Your task to perform on an android device: Open Youtube and go to "Your channel" Image 0: 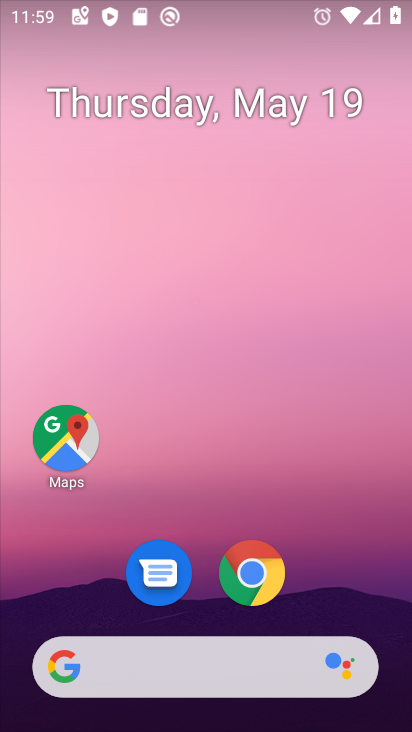
Step 0: drag from (201, 603) to (300, 37)
Your task to perform on an android device: Open Youtube and go to "Your channel" Image 1: 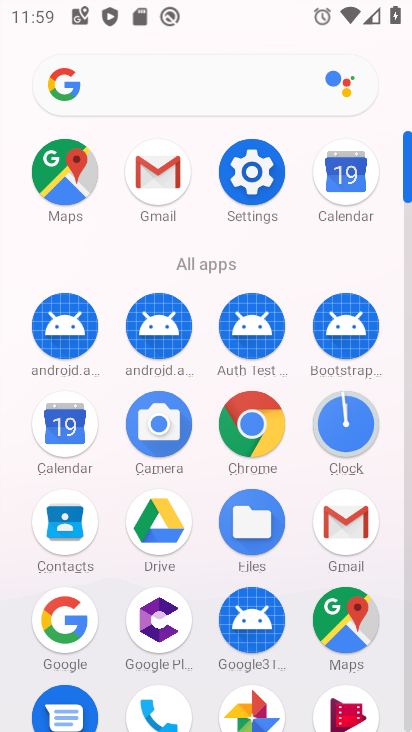
Step 1: drag from (215, 564) to (279, 101)
Your task to perform on an android device: Open Youtube and go to "Your channel" Image 2: 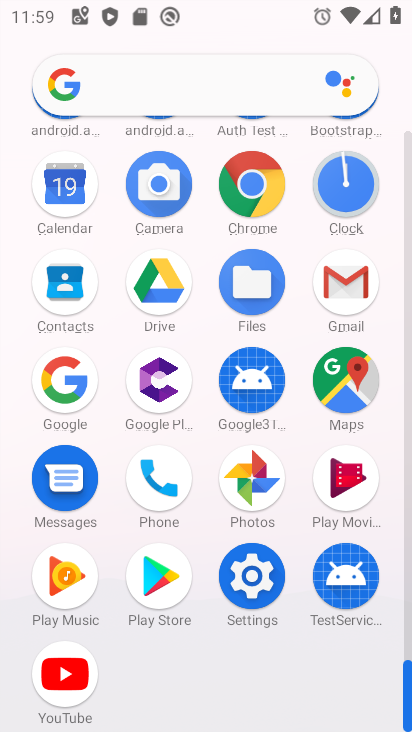
Step 2: click (73, 680)
Your task to perform on an android device: Open Youtube and go to "Your channel" Image 3: 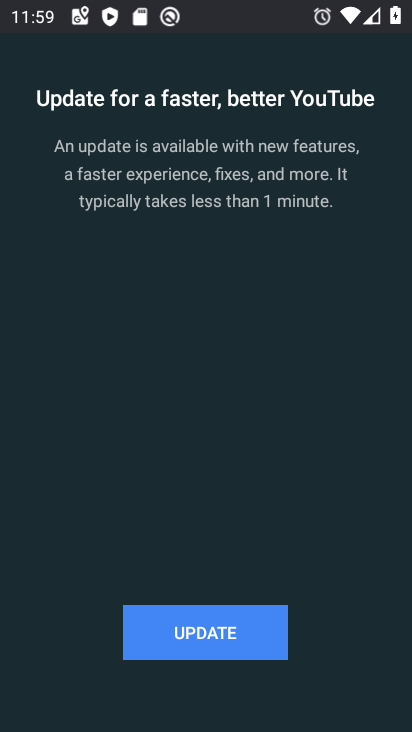
Step 3: click (198, 627)
Your task to perform on an android device: Open Youtube and go to "Your channel" Image 4: 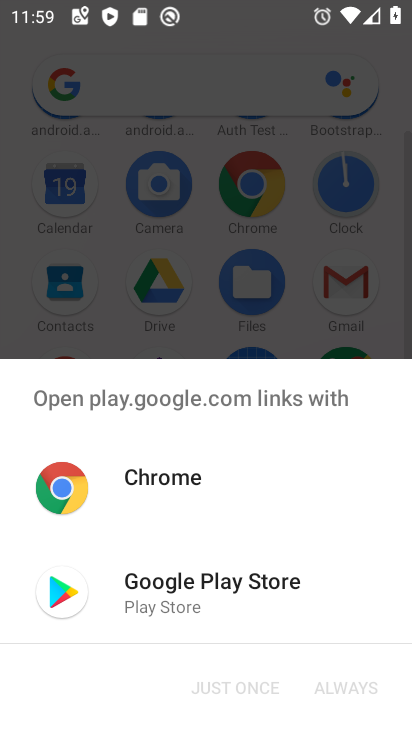
Step 4: click (161, 601)
Your task to perform on an android device: Open Youtube and go to "Your channel" Image 5: 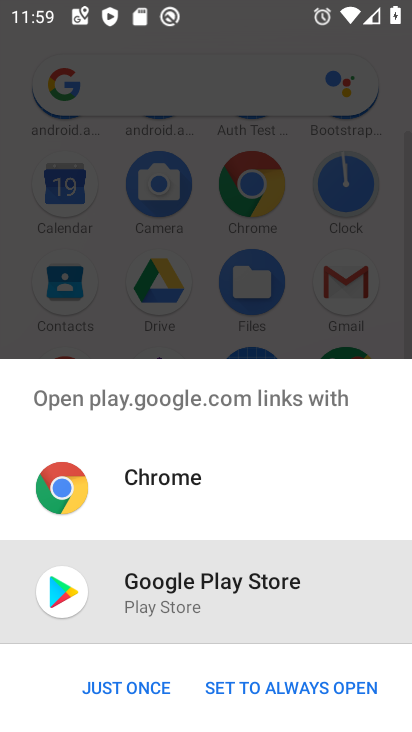
Step 5: click (155, 691)
Your task to perform on an android device: Open Youtube and go to "Your channel" Image 6: 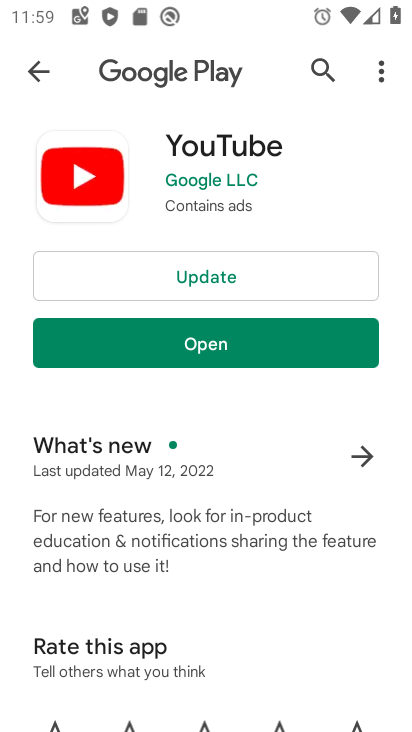
Step 6: click (155, 270)
Your task to perform on an android device: Open Youtube and go to "Your channel" Image 7: 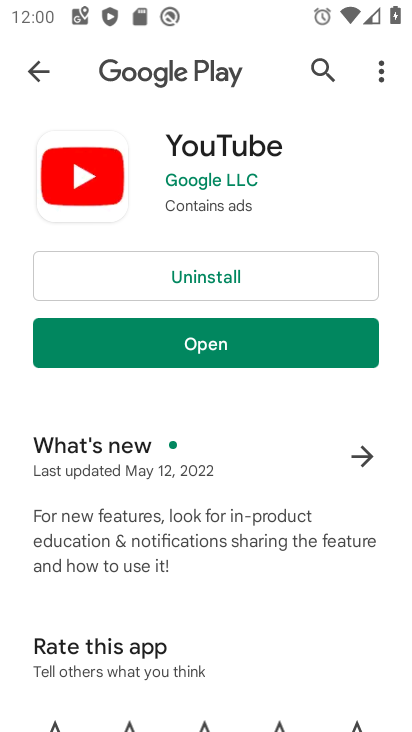
Step 7: click (301, 337)
Your task to perform on an android device: Open Youtube and go to "Your channel" Image 8: 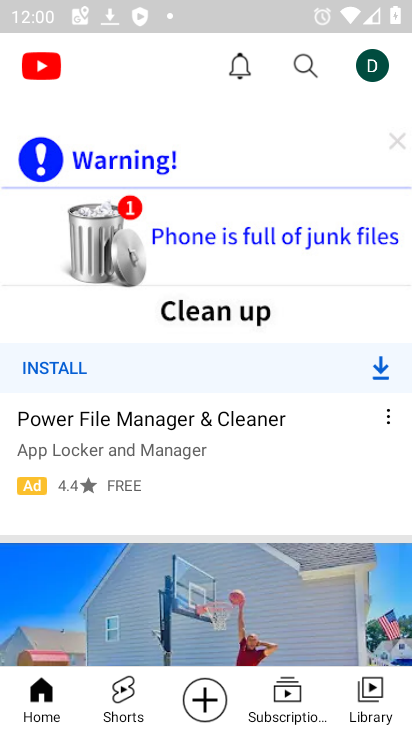
Step 8: click (372, 62)
Your task to perform on an android device: Open Youtube and go to "Your channel" Image 9: 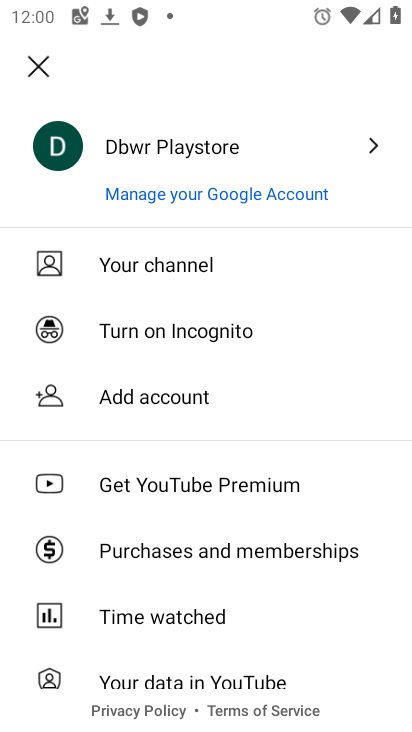
Step 9: click (119, 269)
Your task to perform on an android device: Open Youtube and go to "Your channel" Image 10: 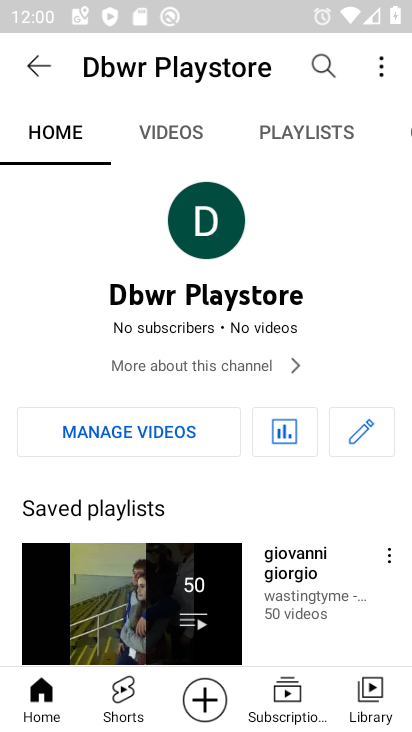
Step 10: task complete